Your task to perform on an android device: read, delete, or share a saved page in the chrome app Image 0: 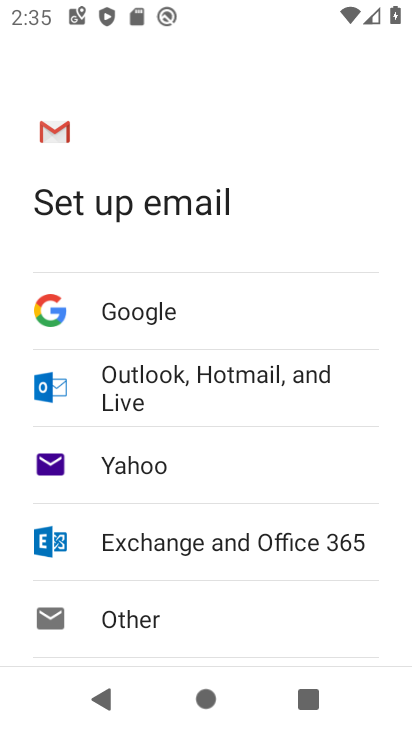
Step 0: press back button
Your task to perform on an android device: read, delete, or share a saved page in the chrome app Image 1: 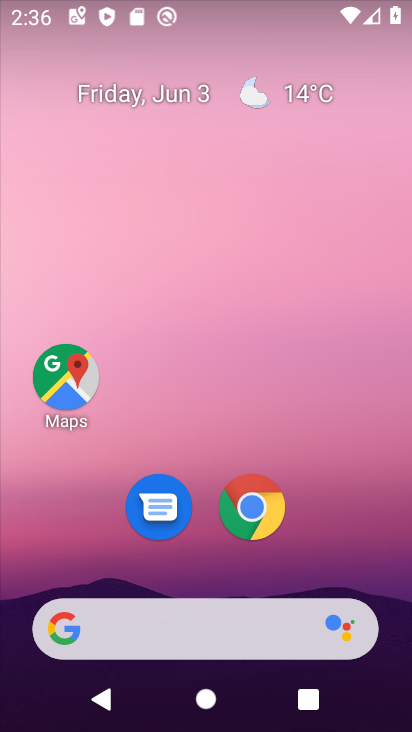
Step 1: click (251, 508)
Your task to perform on an android device: read, delete, or share a saved page in the chrome app Image 2: 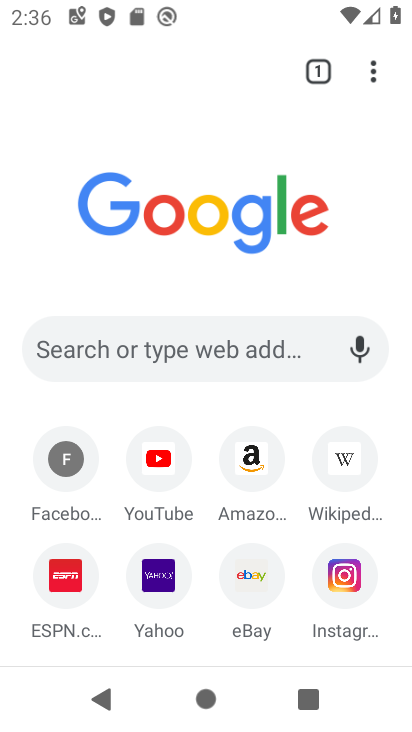
Step 2: click (374, 69)
Your task to perform on an android device: read, delete, or share a saved page in the chrome app Image 3: 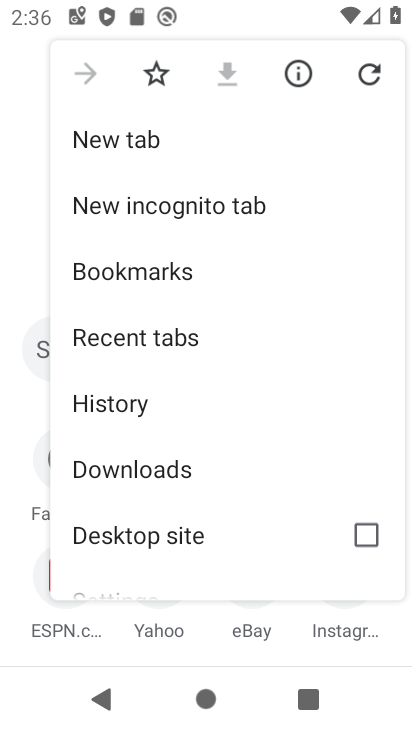
Step 3: click (183, 473)
Your task to perform on an android device: read, delete, or share a saved page in the chrome app Image 4: 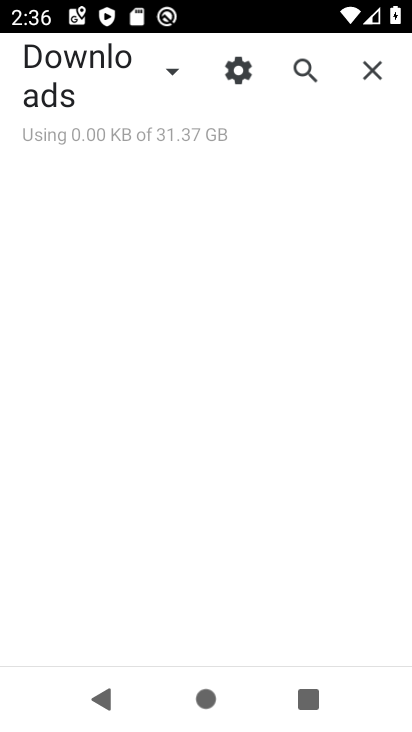
Step 4: click (168, 73)
Your task to perform on an android device: read, delete, or share a saved page in the chrome app Image 5: 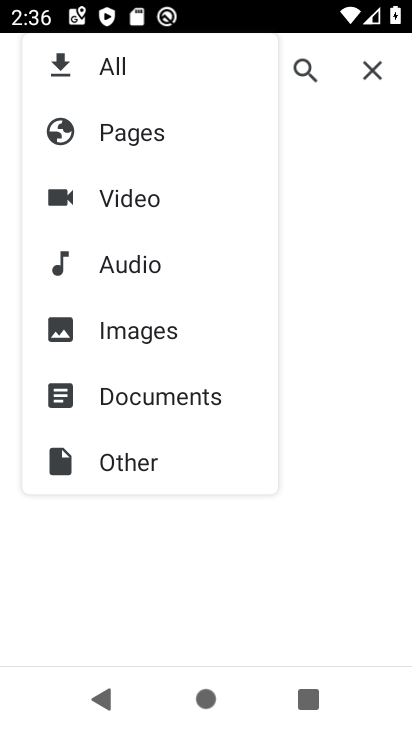
Step 5: click (149, 196)
Your task to perform on an android device: read, delete, or share a saved page in the chrome app Image 6: 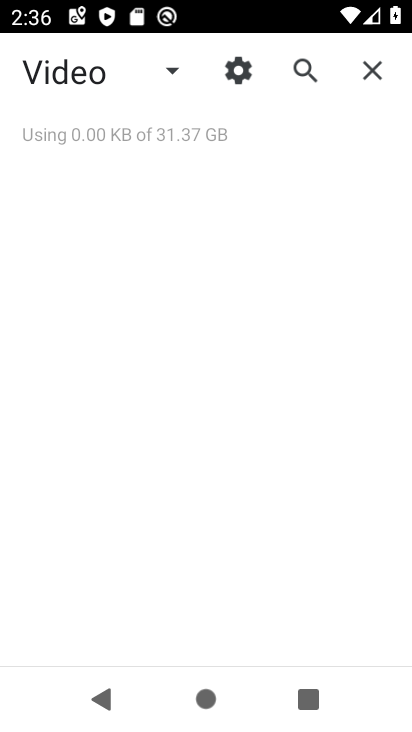
Step 6: click (178, 67)
Your task to perform on an android device: read, delete, or share a saved page in the chrome app Image 7: 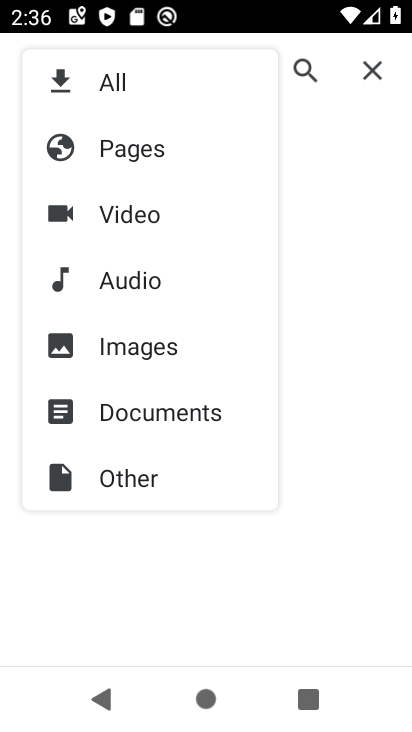
Step 7: click (135, 138)
Your task to perform on an android device: read, delete, or share a saved page in the chrome app Image 8: 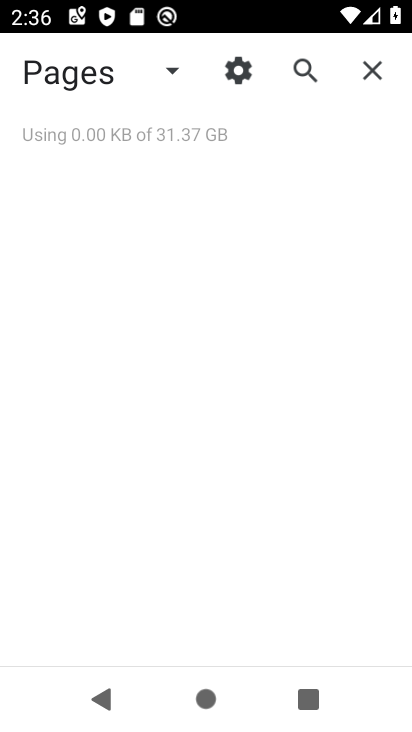
Step 8: click (177, 69)
Your task to perform on an android device: read, delete, or share a saved page in the chrome app Image 9: 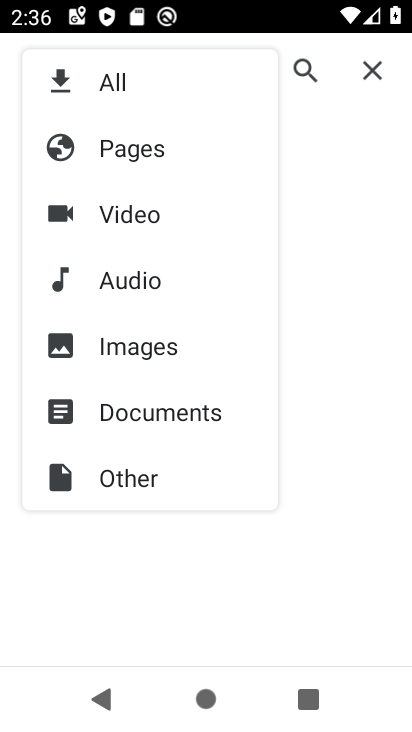
Step 9: click (122, 336)
Your task to perform on an android device: read, delete, or share a saved page in the chrome app Image 10: 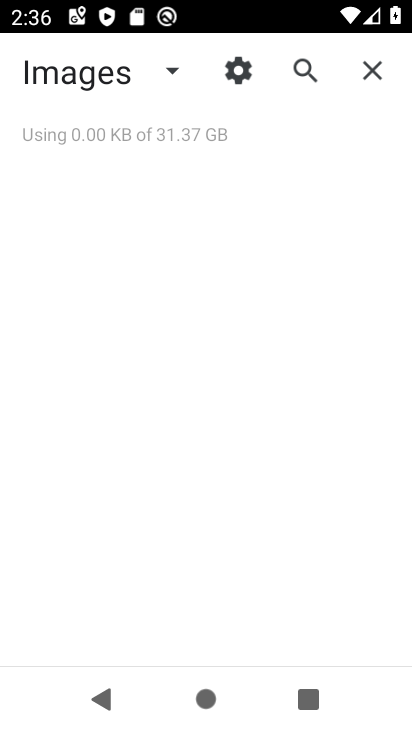
Step 10: click (177, 63)
Your task to perform on an android device: read, delete, or share a saved page in the chrome app Image 11: 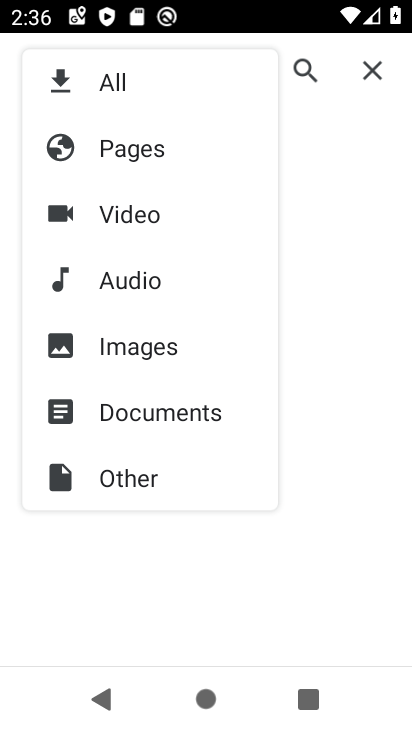
Step 11: click (123, 485)
Your task to perform on an android device: read, delete, or share a saved page in the chrome app Image 12: 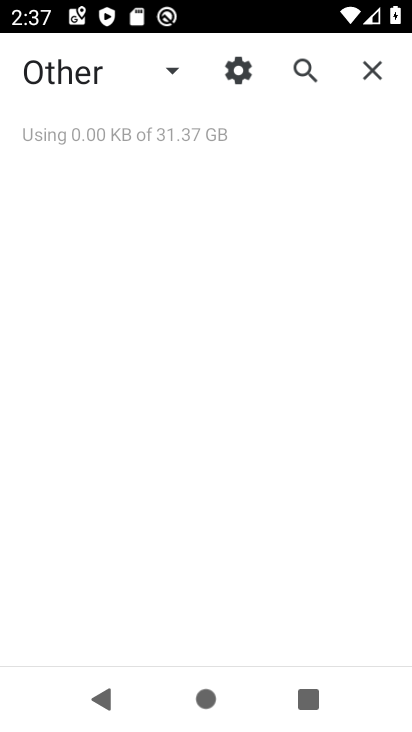
Step 12: task complete